Your task to perform on an android device: Add "macbook air" to the cart on ebay.com, then select checkout. Image 0: 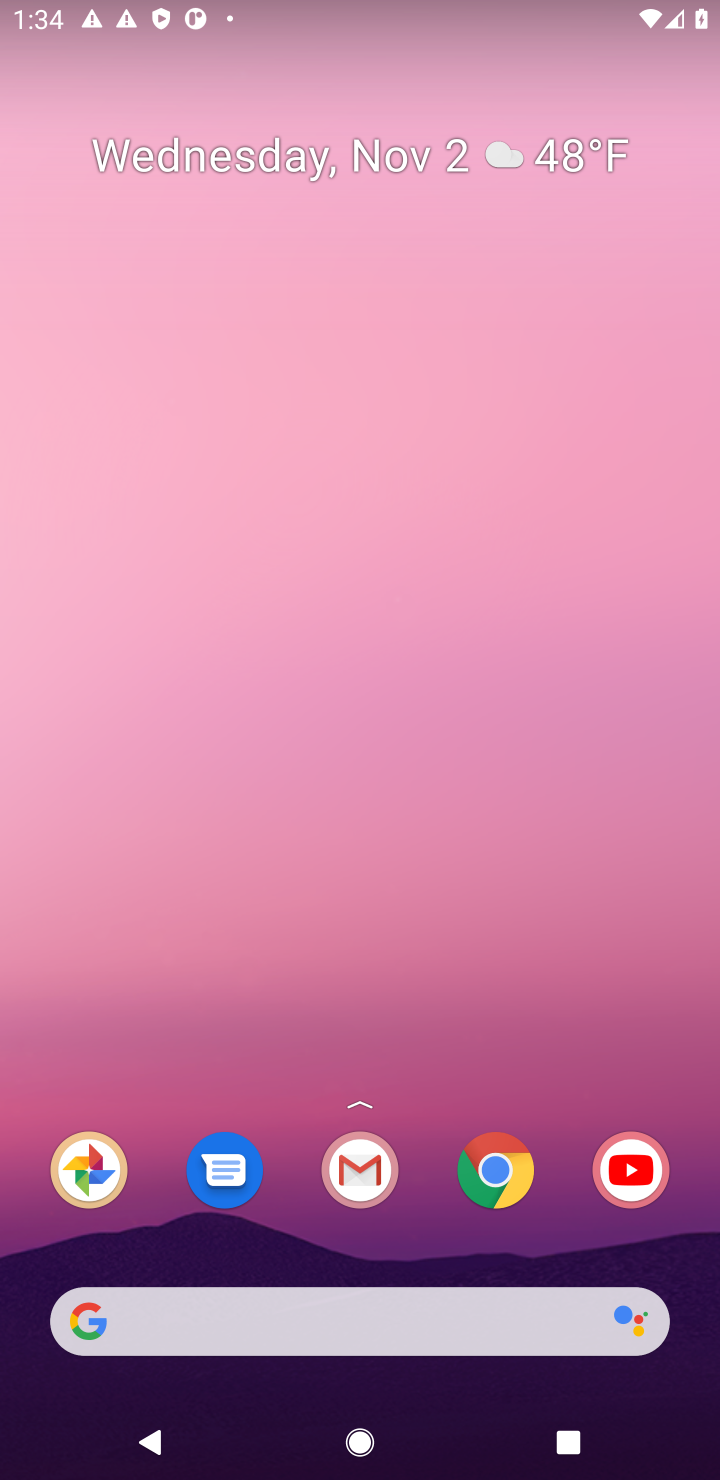
Step 0: drag from (420, 1263) to (486, 543)
Your task to perform on an android device: Add "macbook air" to the cart on ebay.com, then select checkout. Image 1: 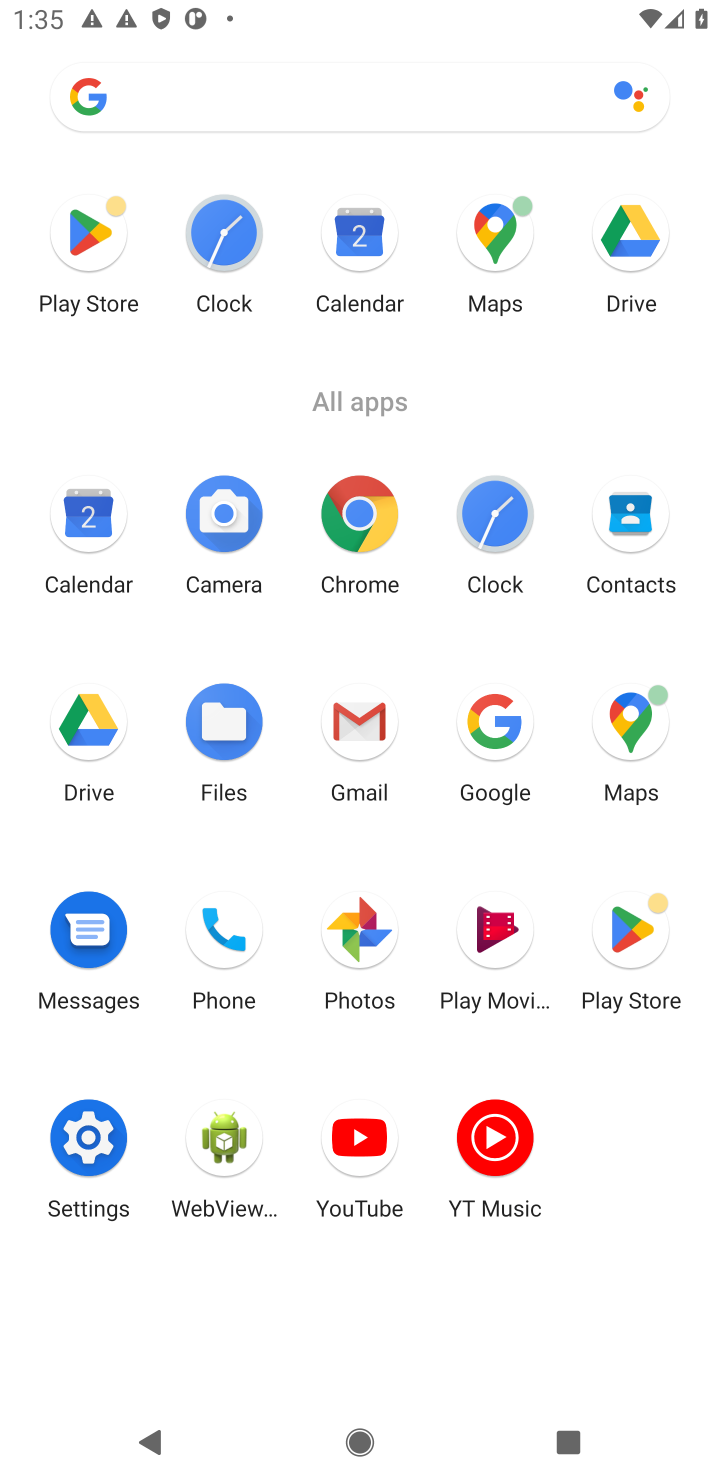
Step 1: click (515, 761)
Your task to perform on an android device: Add "macbook air" to the cart on ebay.com, then select checkout. Image 2: 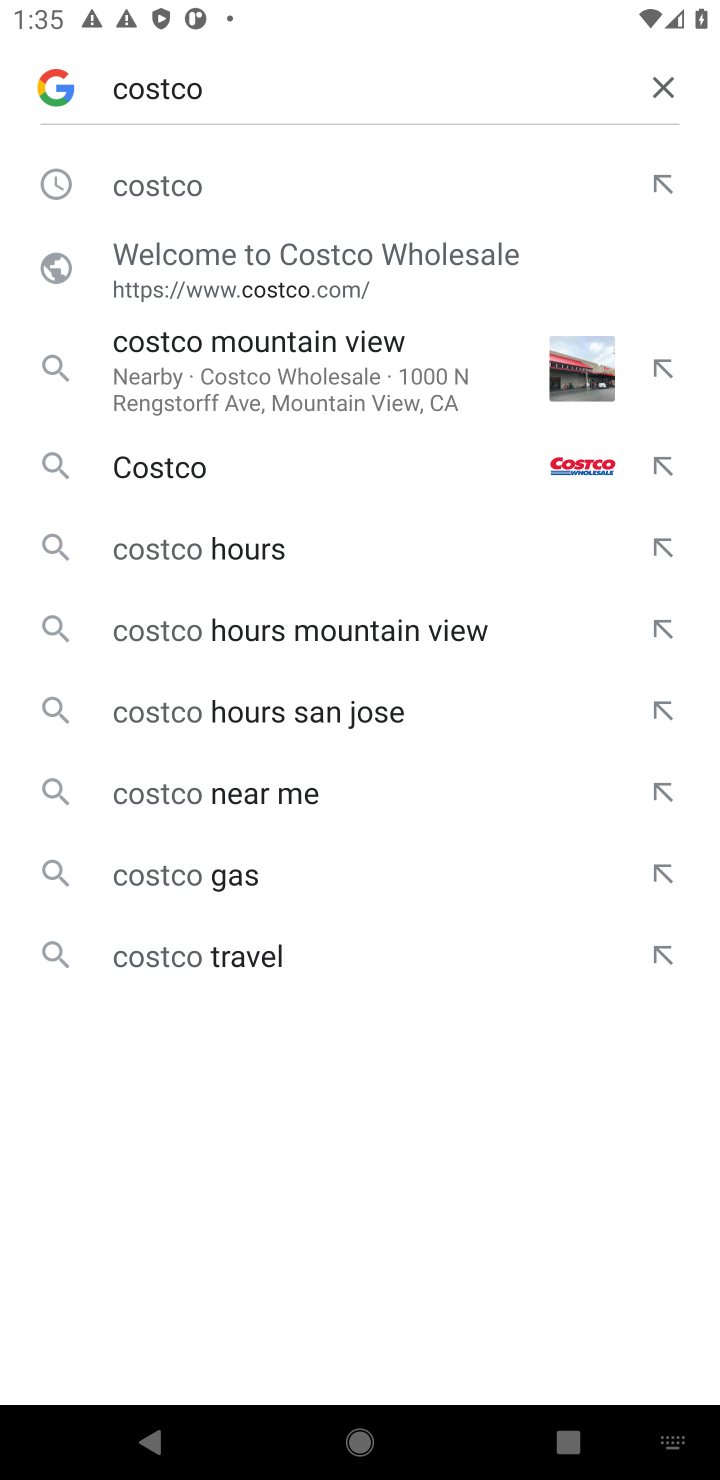
Step 2: click (344, 172)
Your task to perform on an android device: Add "macbook air" to the cart on ebay.com, then select checkout. Image 3: 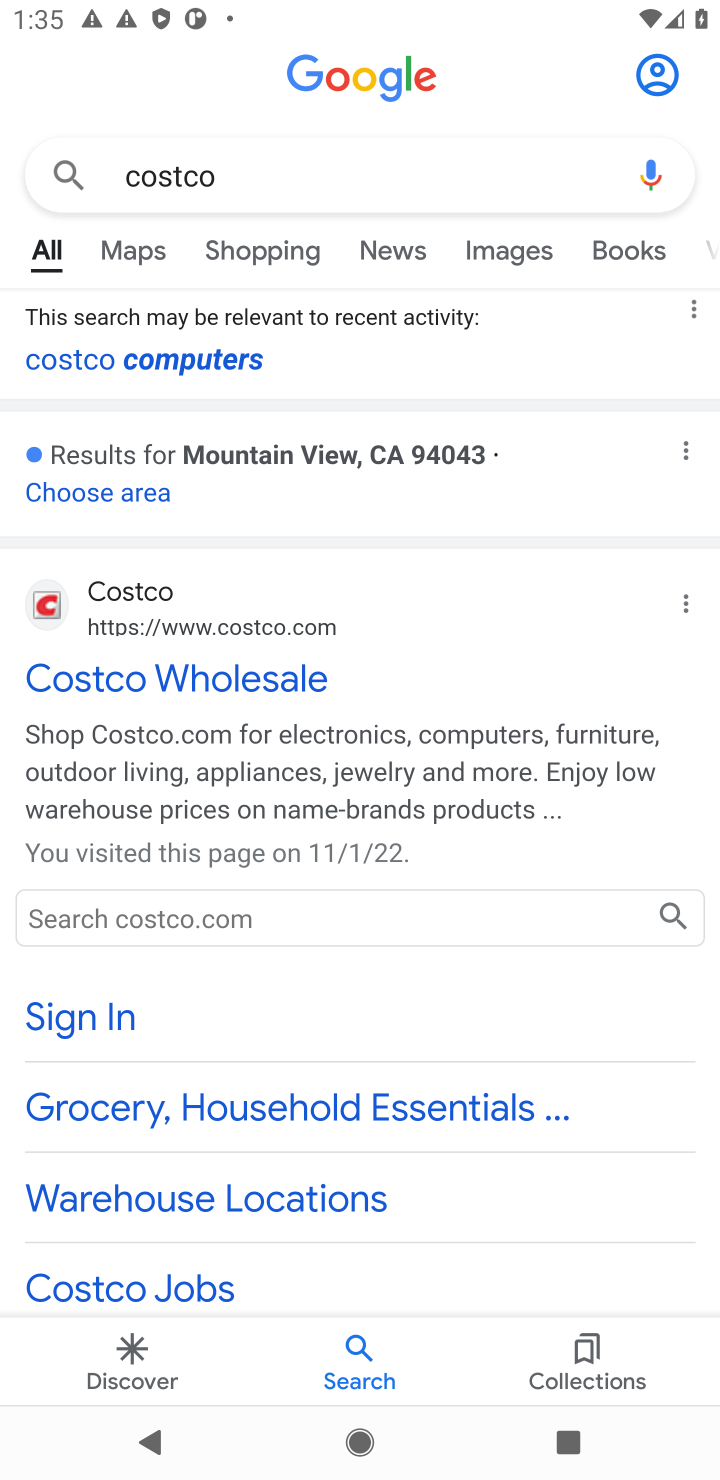
Step 3: click (399, 162)
Your task to perform on an android device: Add "macbook air" to the cart on ebay.com, then select checkout. Image 4: 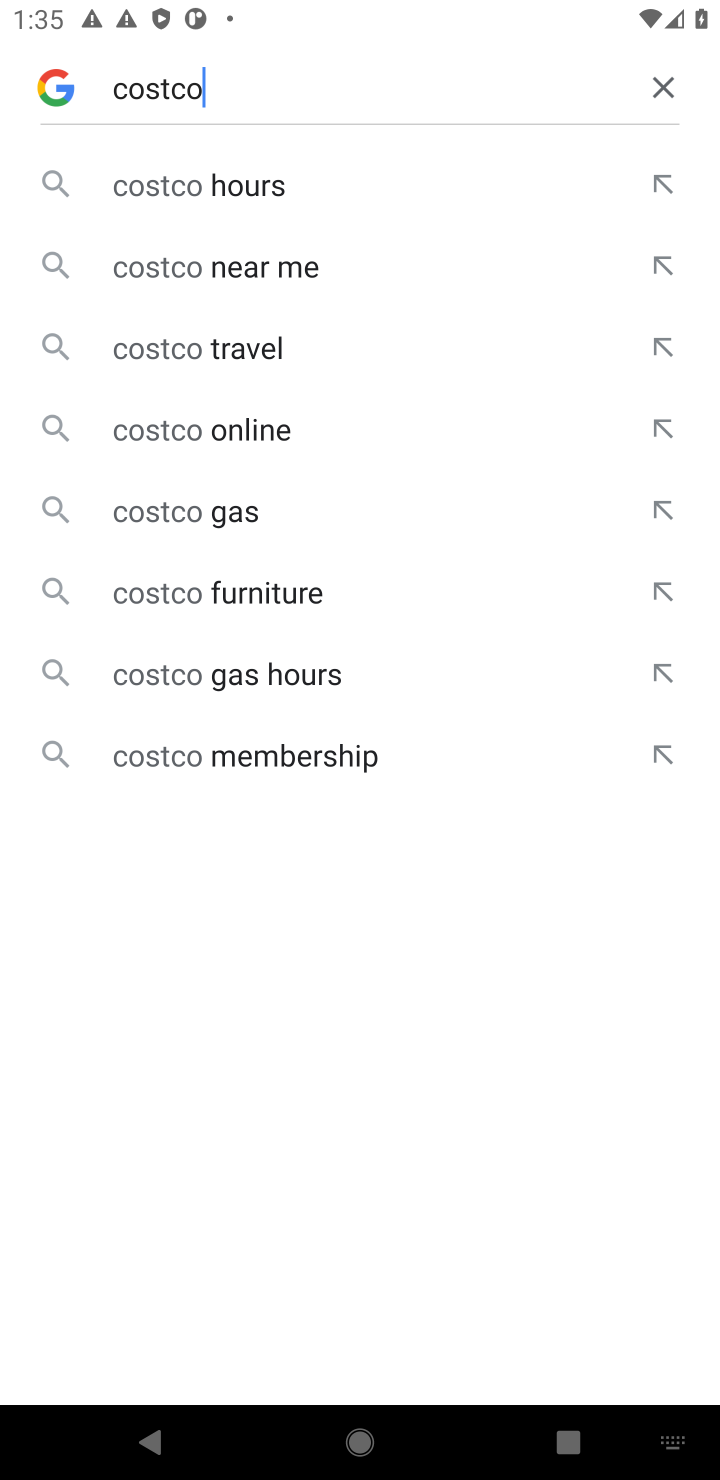
Step 4: click (664, 81)
Your task to perform on an android device: Add "macbook air" to the cart on ebay.com, then select checkout. Image 5: 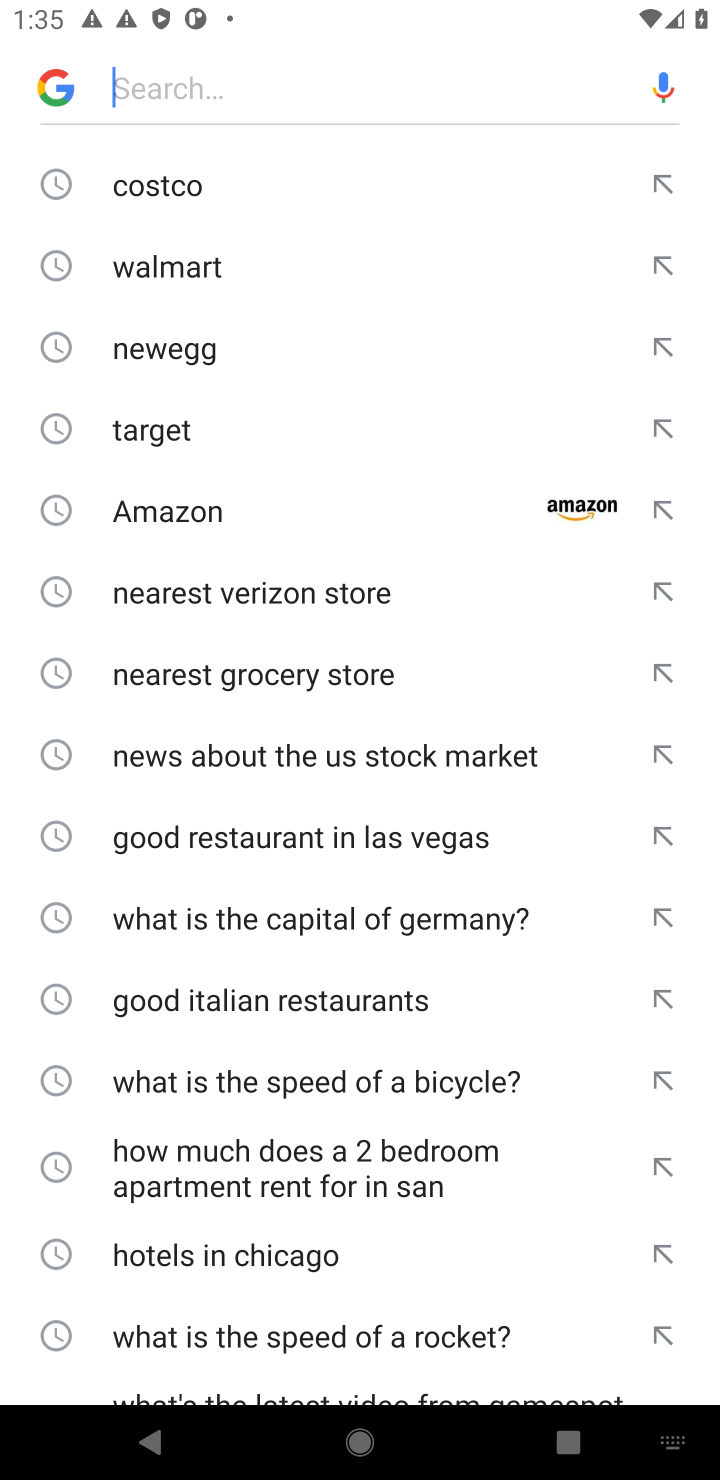
Step 5: type "ebay.com"
Your task to perform on an android device: Add "macbook air" to the cart on ebay.com, then select checkout. Image 6: 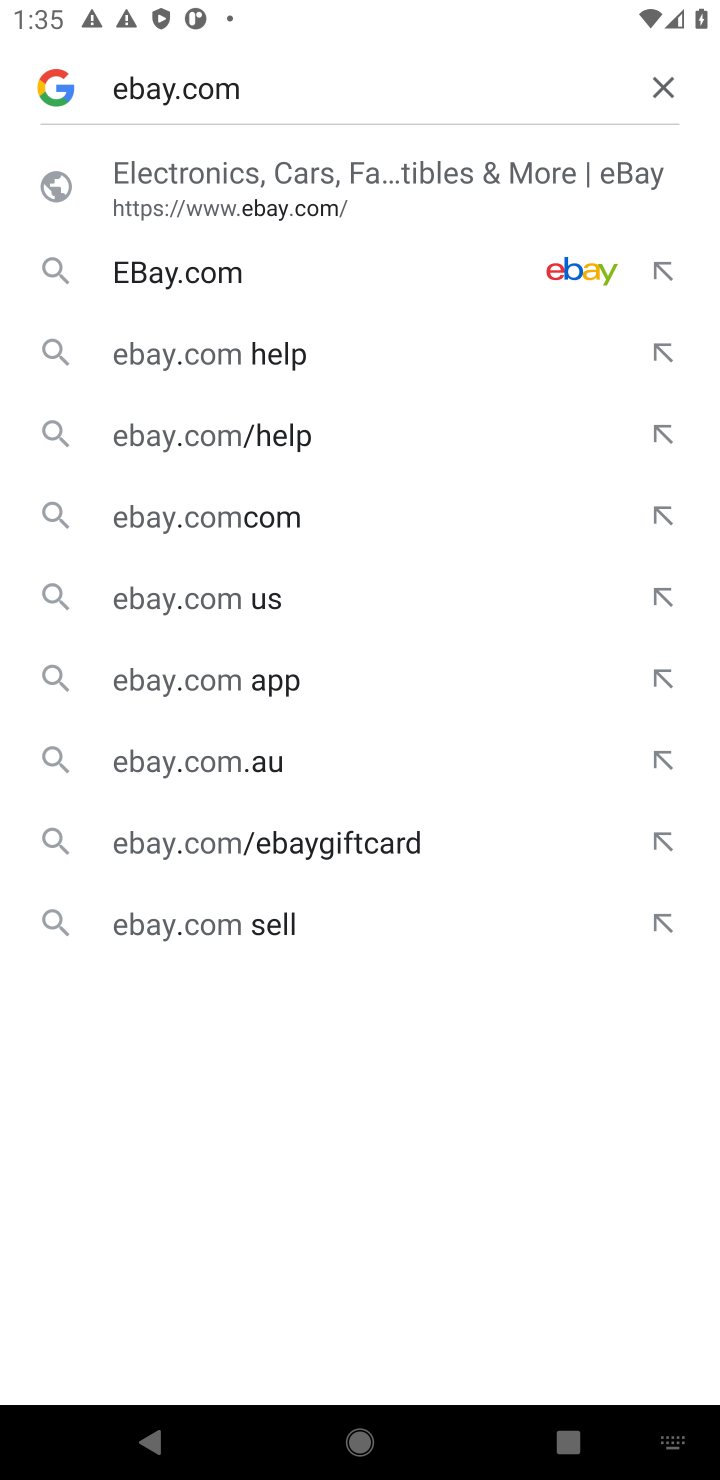
Step 6: click (267, 192)
Your task to perform on an android device: Add "macbook air" to the cart on ebay.com, then select checkout. Image 7: 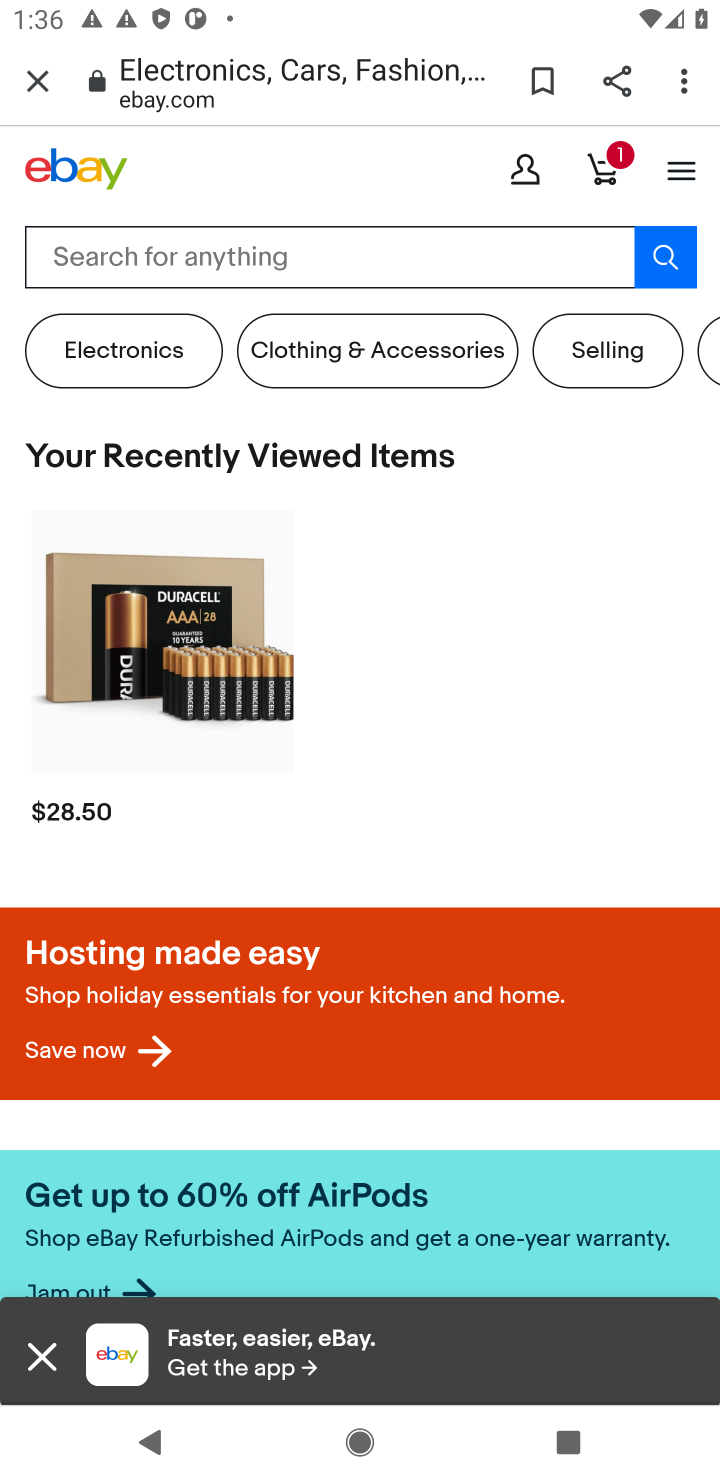
Step 7: click (243, 247)
Your task to perform on an android device: Add "macbook air" to the cart on ebay.com, then select checkout. Image 8: 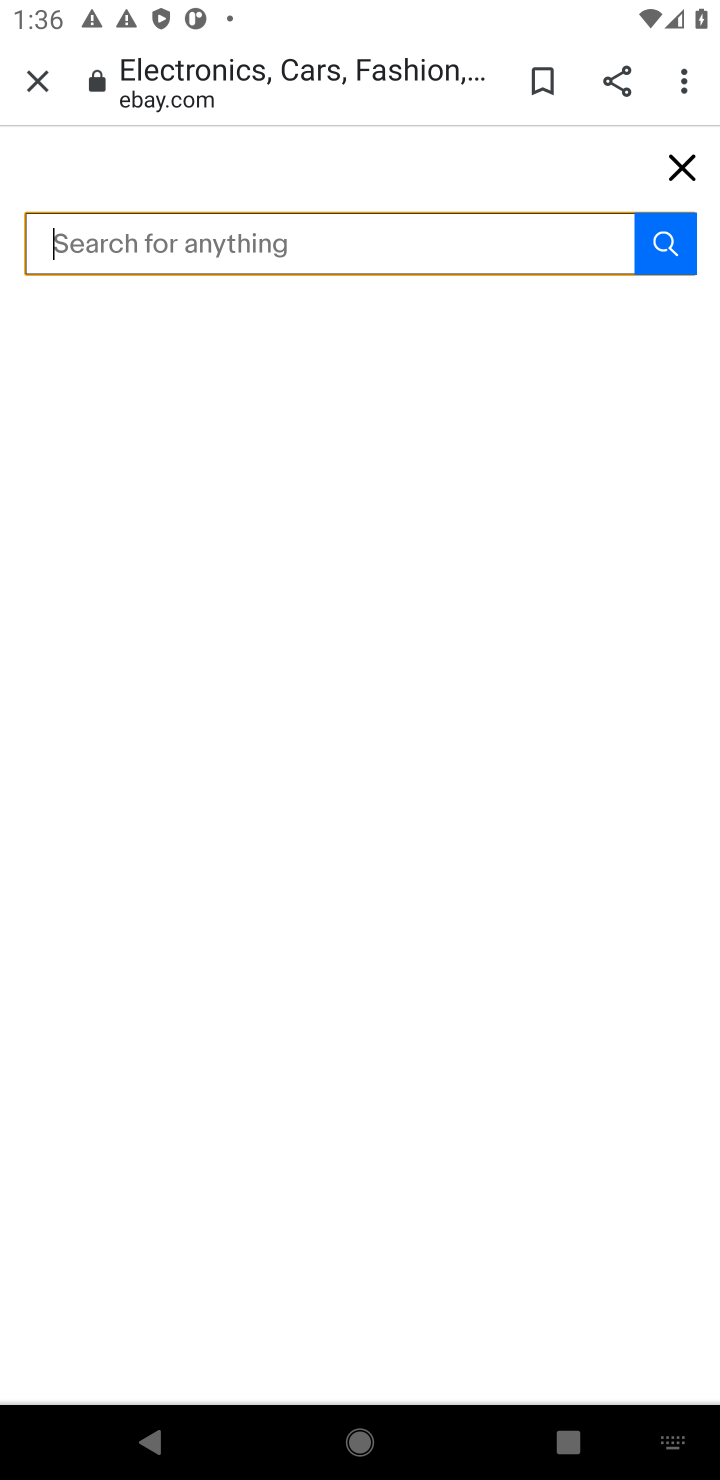
Step 8: type "macbook air"
Your task to perform on an android device: Add "macbook air" to the cart on ebay.com, then select checkout. Image 9: 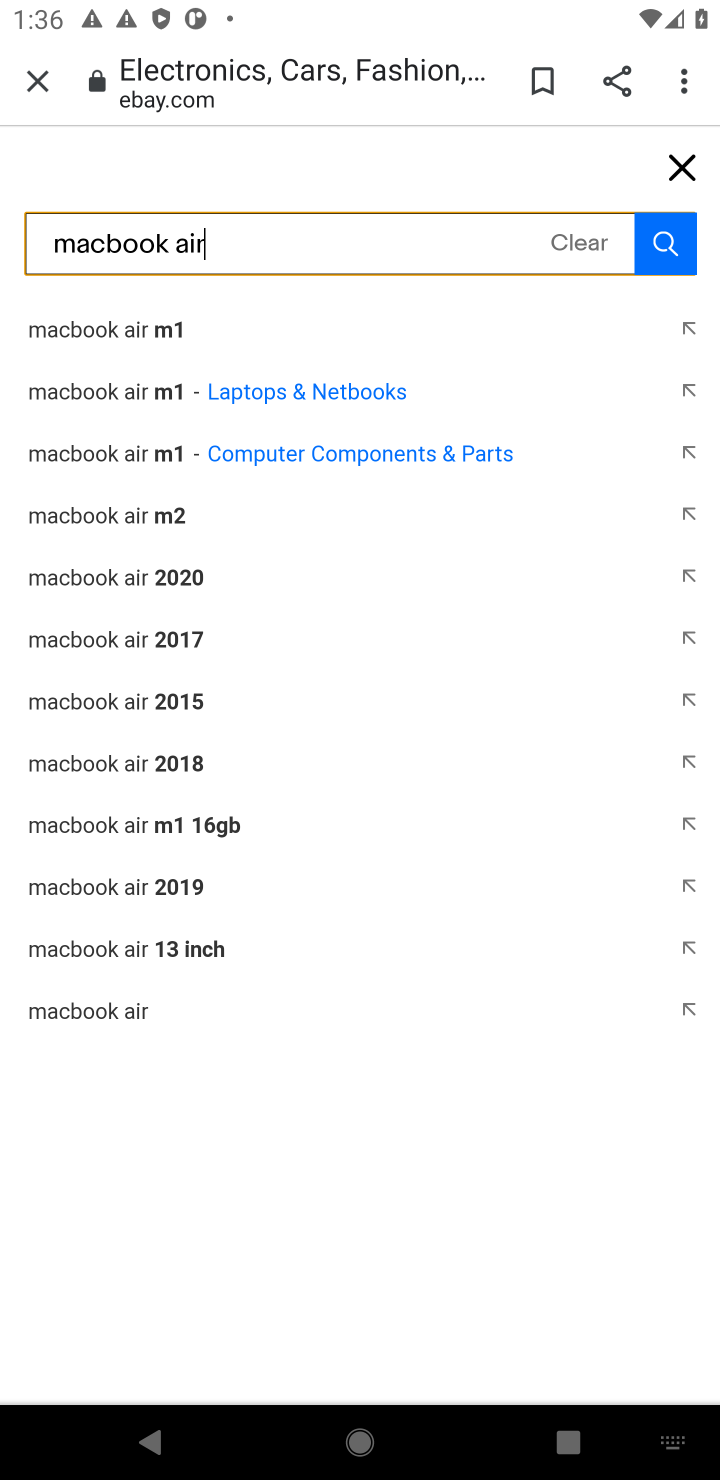
Step 9: click (133, 1009)
Your task to perform on an android device: Add "macbook air" to the cart on ebay.com, then select checkout. Image 10: 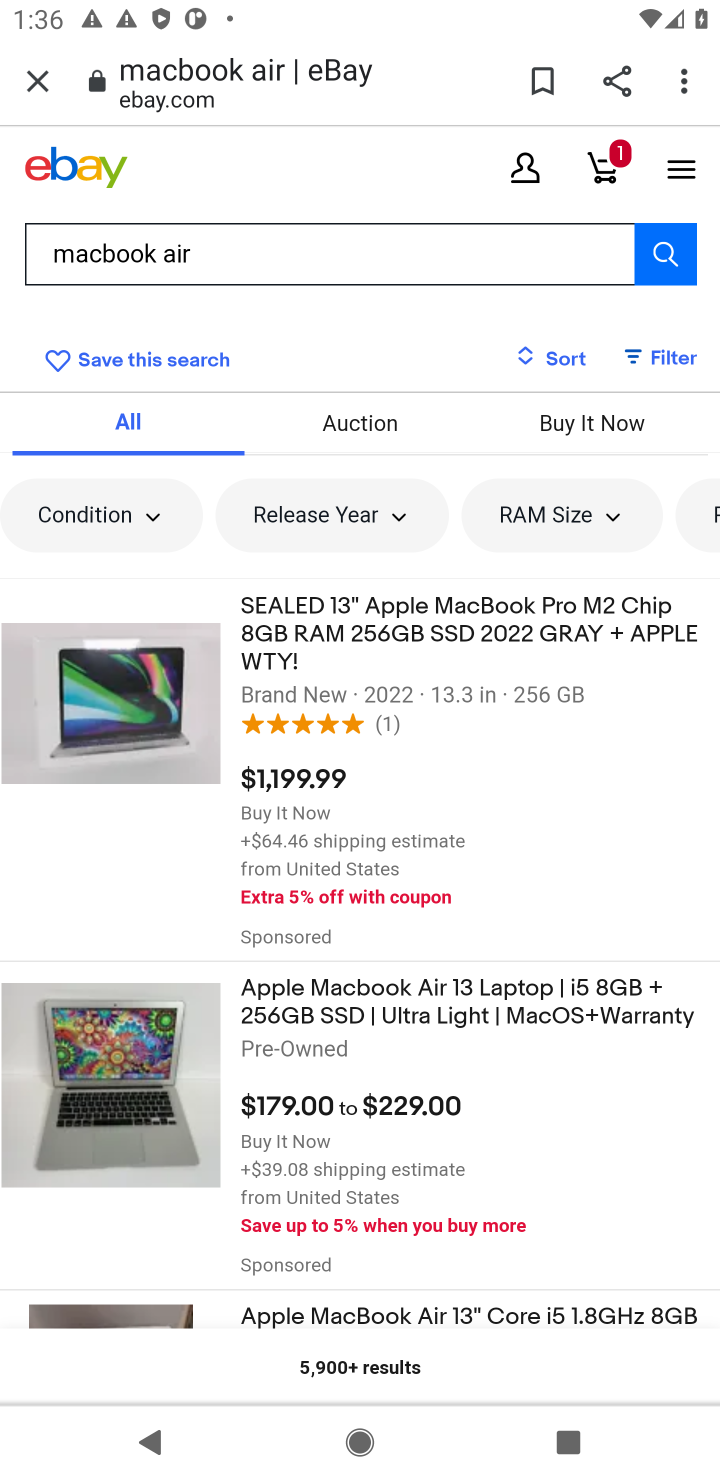
Step 10: click (344, 606)
Your task to perform on an android device: Add "macbook air" to the cart on ebay.com, then select checkout. Image 11: 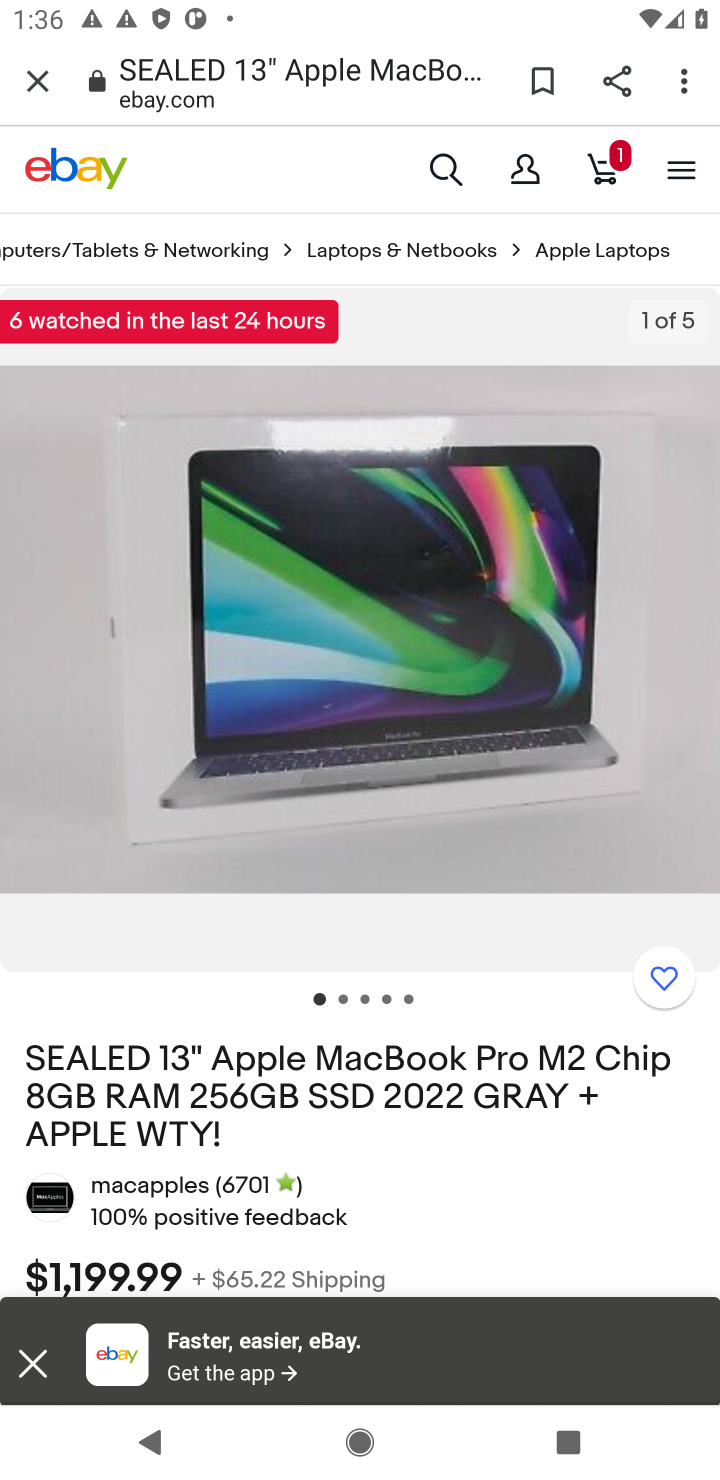
Step 11: drag from (444, 1136) to (494, 514)
Your task to perform on an android device: Add "macbook air" to the cart on ebay.com, then select checkout. Image 12: 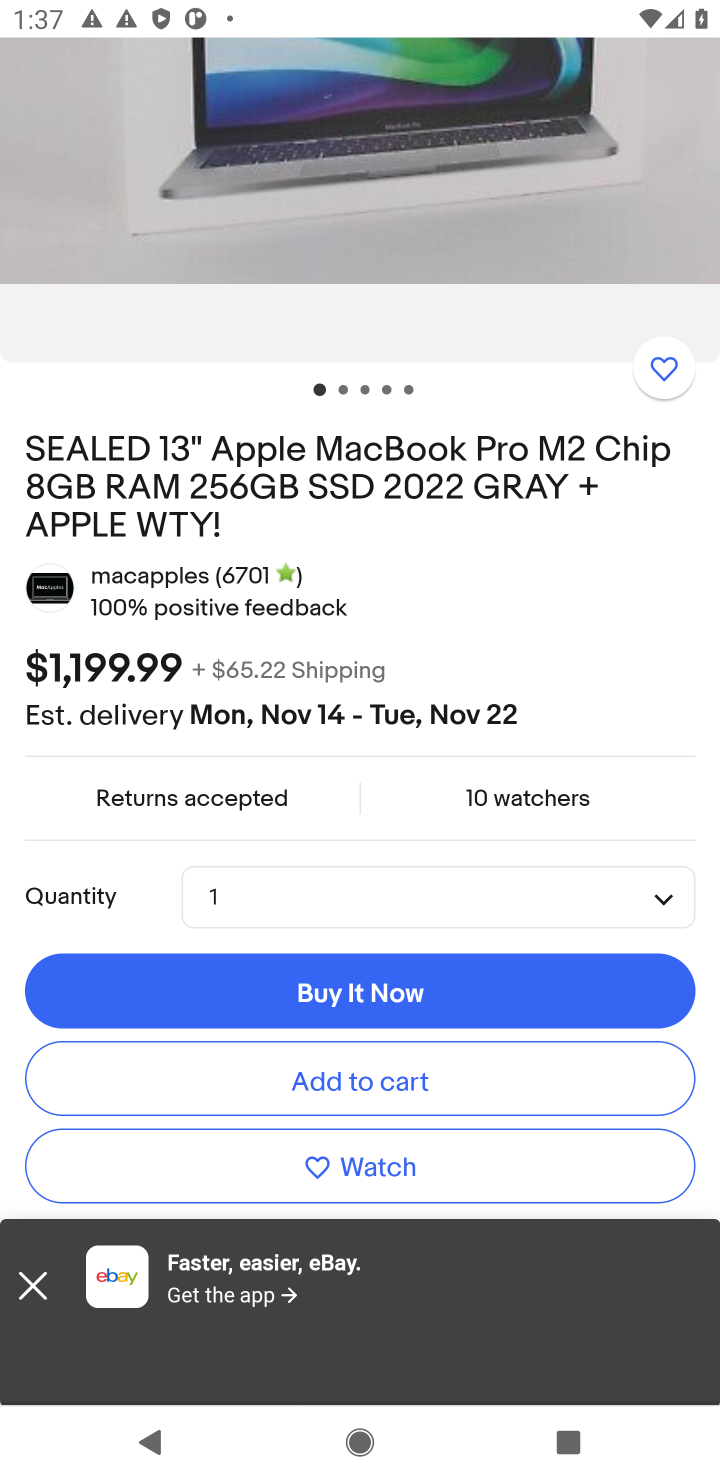
Step 12: click (457, 1090)
Your task to perform on an android device: Add "macbook air" to the cart on ebay.com, then select checkout. Image 13: 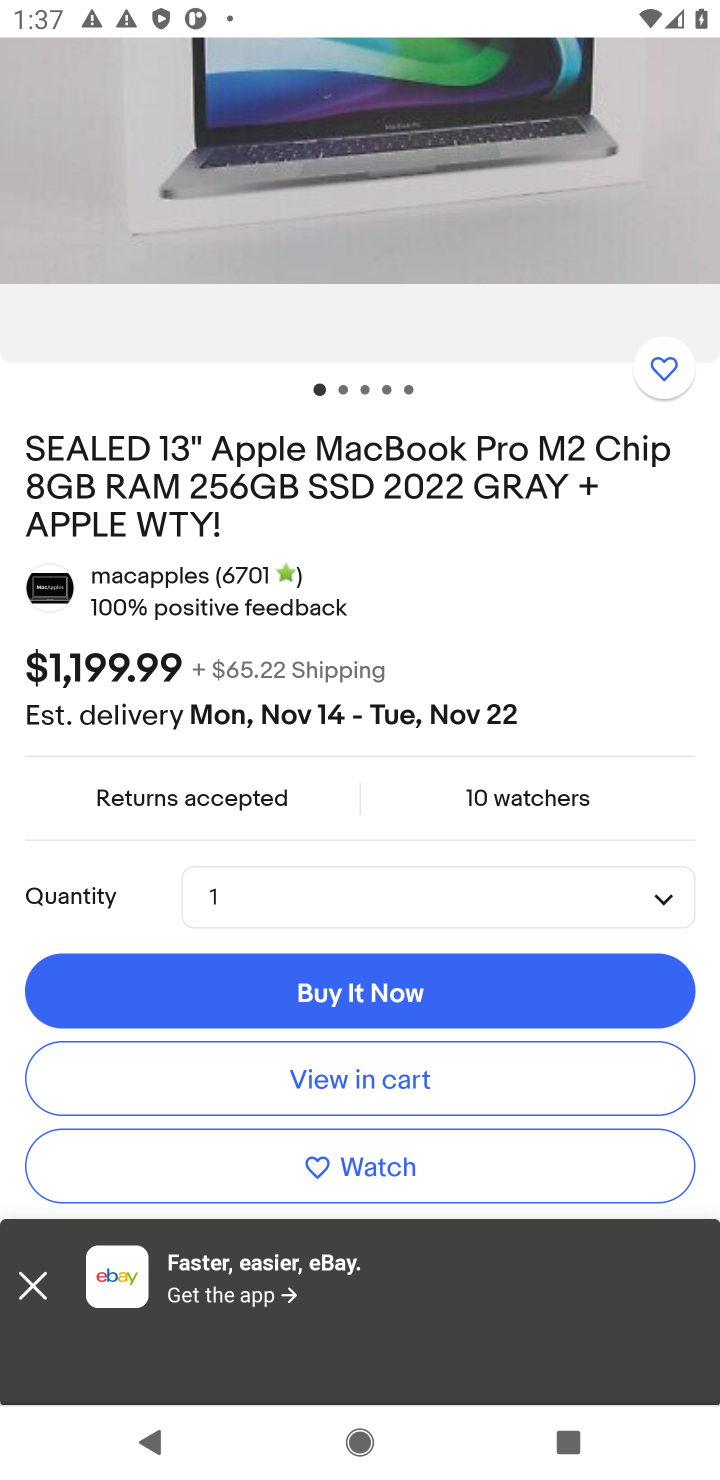
Step 13: click (457, 1090)
Your task to perform on an android device: Add "macbook air" to the cart on ebay.com, then select checkout. Image 14: 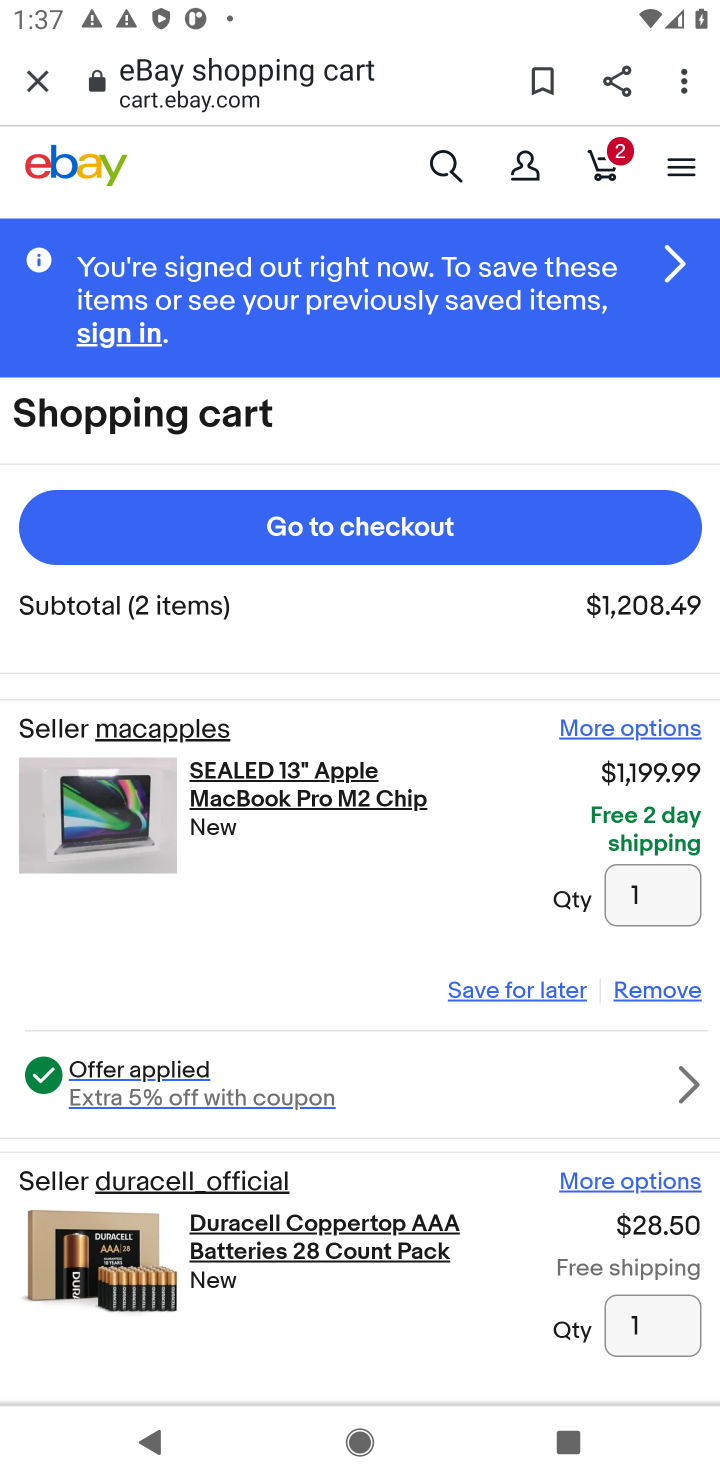
Step 14: click (429, 511)
Your task to perform on an android device: Add "macbook air" to the cart on ebay.com, then select checkout. Image 15: 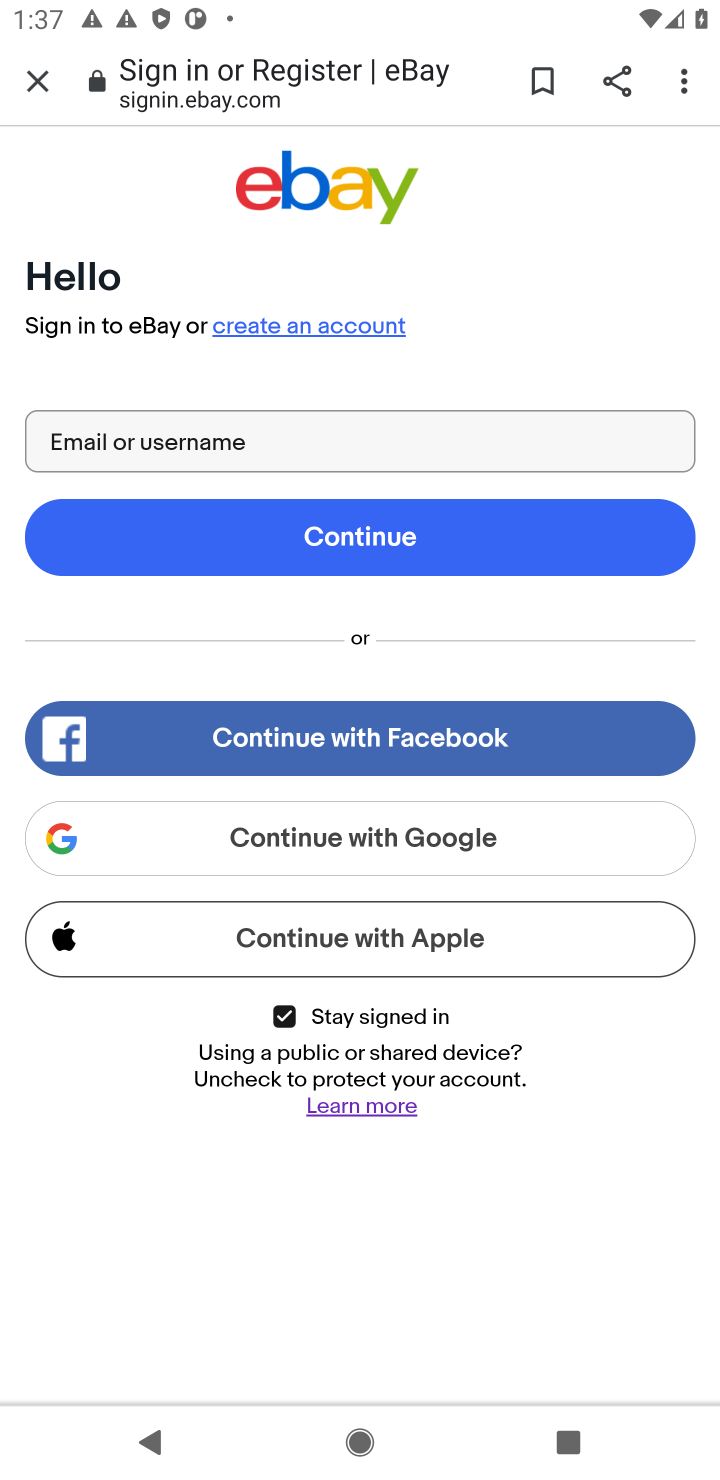
Step 15: task complete